Your task to perform on an android device: turn notification dots off Image 0: 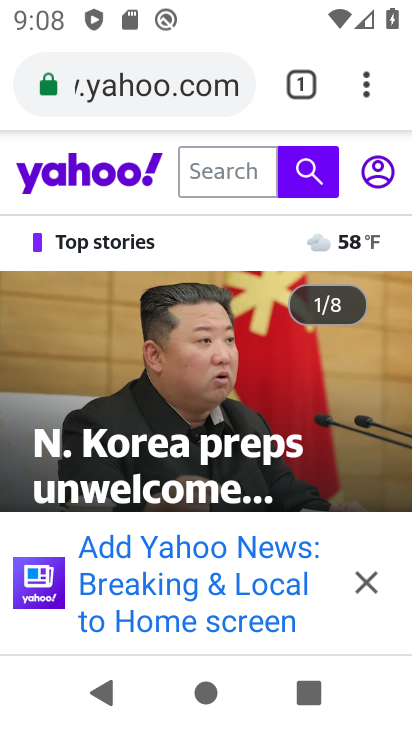
Step 0: press home button
Your task to perform on an android device: turn notification dots off Image 1: 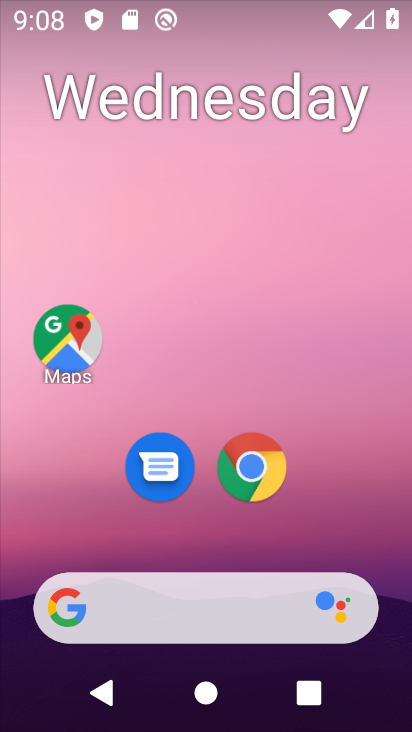
Step 1: drag from (311, 540) to (170, 6)
Your task to perform on an android device: turn notification dots off Image 2: 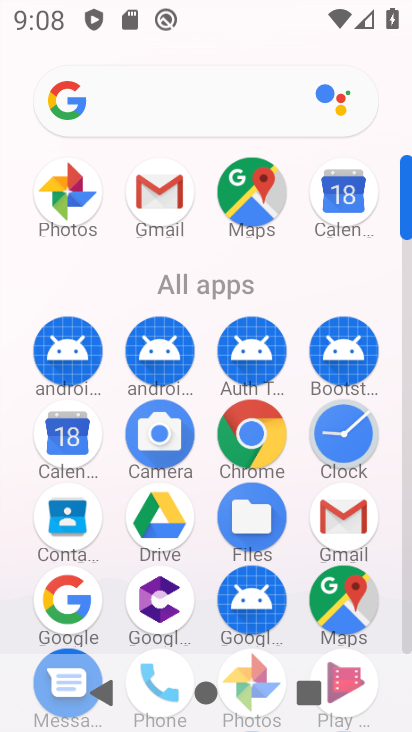
Step 2: drag from (204, 554) to (202, 113)
Your task to perform on an android device: turn notification dots off Image 3: 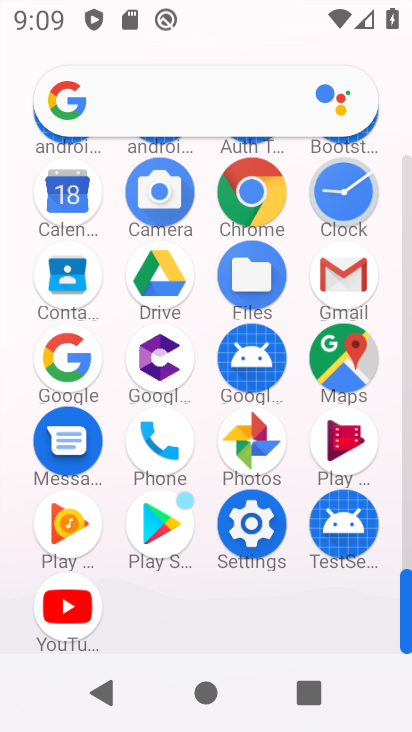
Step 3: click (242, 530)
Your task to perform on an android device: turn notification dots off Image 4: 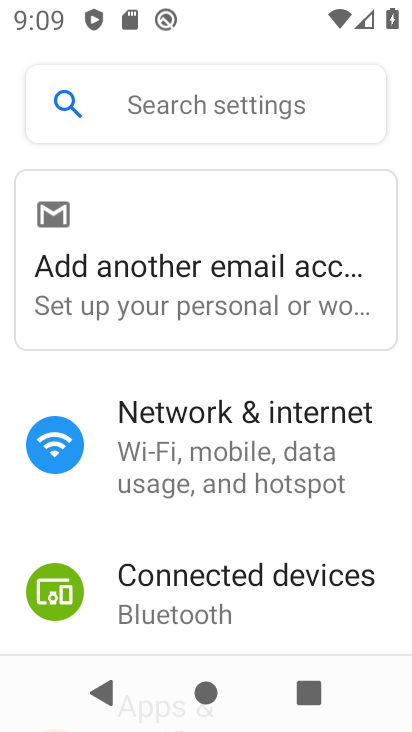
Step 4: drag from (267, 551) to (269, 129)
Your task to perform on an android device: turn notification dots off Image 5: 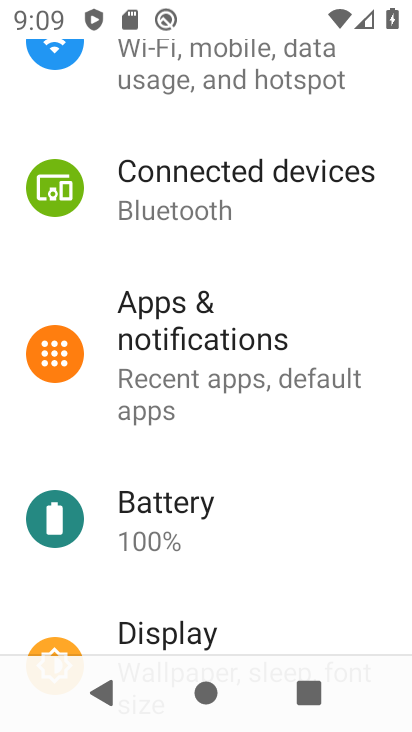
Step 5: click (207, 350)
Your task to perform on an android device: turn notification dots off Image 6: 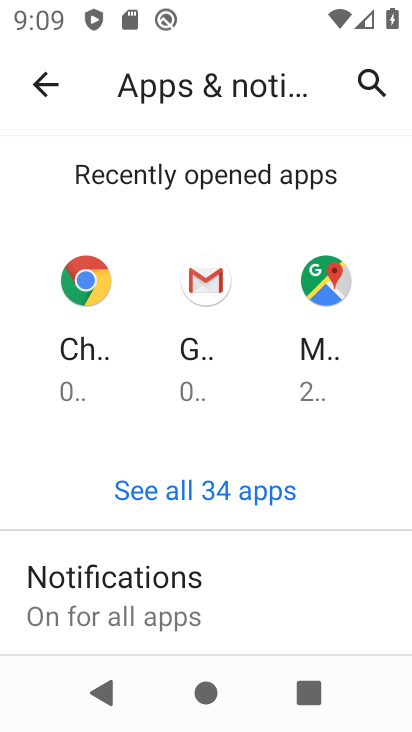
Step 6: click (236, 580)
Your task to perform on an android device: turn notification dots off Image 7: 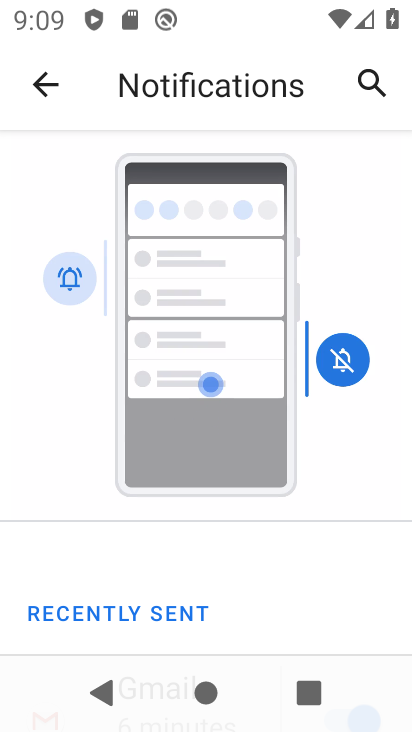
Step 7: drag from (193, 553) to (229, 190)
Your task to perform on an android device: turn notification dots off Image 8: 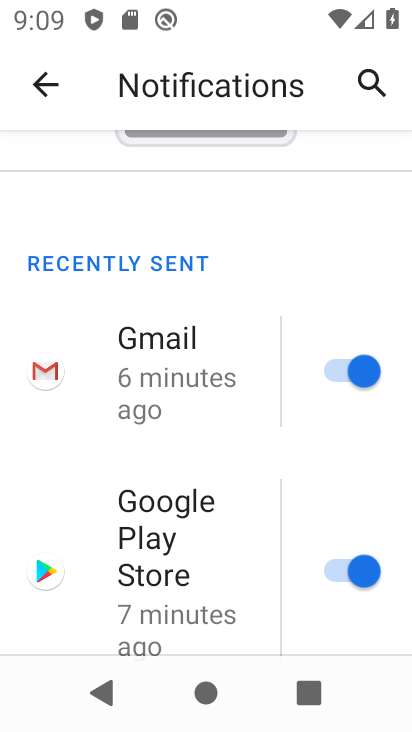
Step 8: drag from (215, 574) to (244, 215)
Your task to perform on an android device: turn notification dots off Image 9: 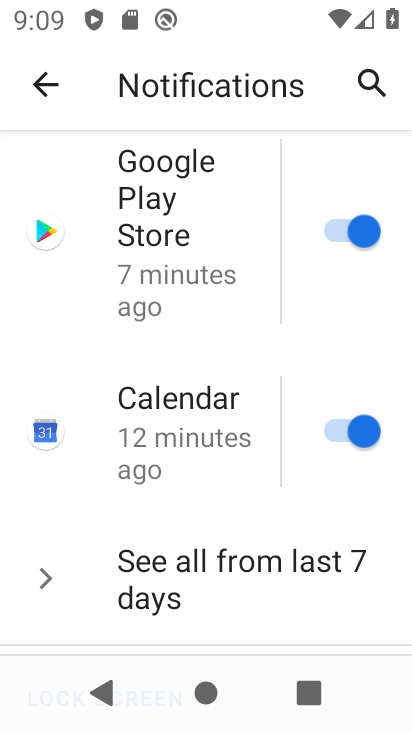
Step 9: drag from (207, 494) to (246, 256)
Your task to perform on an android device: turn notification dots off Image 10: 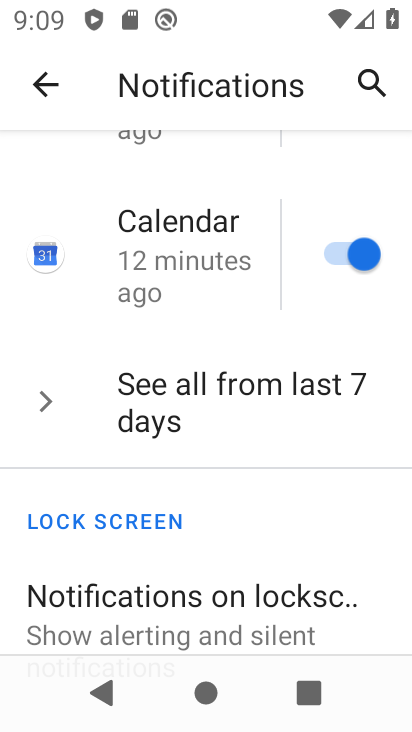
Step 10: drag from (225, 549) to (212, 209)
Your task to perform on an android device: turn notification dots off Image 11: 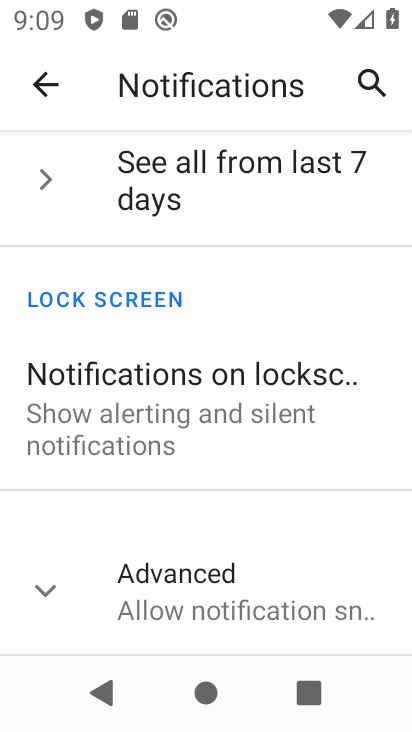
Step 11: click (191, 595)
Your task to perform on an android device: turn notification dots off Image 12: 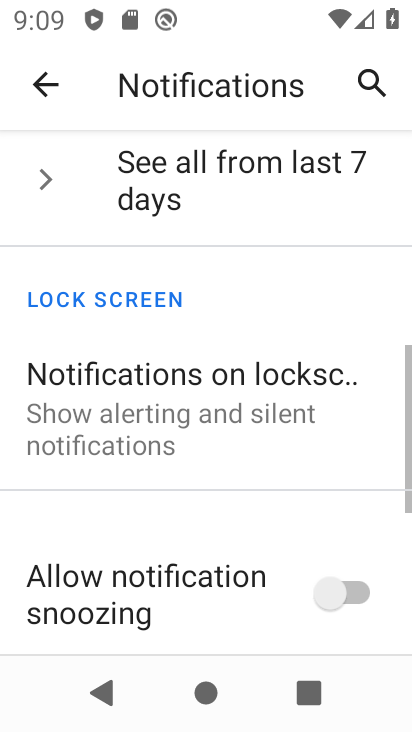
Step 12: drag from (212, 605) to (230, 192)
Your task to perform on an android device: turn notification dots off Image 13: 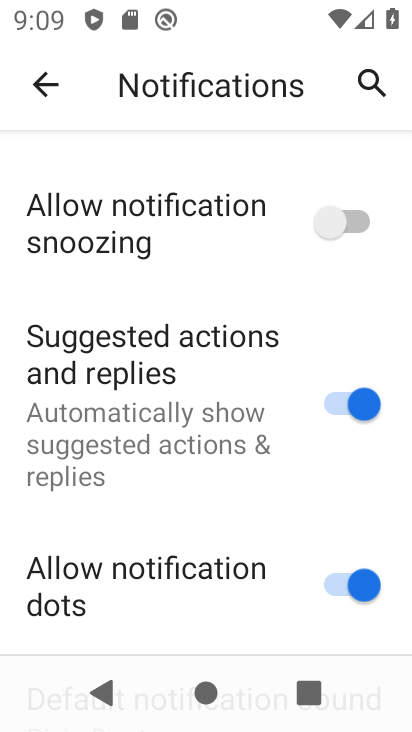
Step 13: click (358, 591)
Your task to perform on an android device: turn notification dots off Image 14: 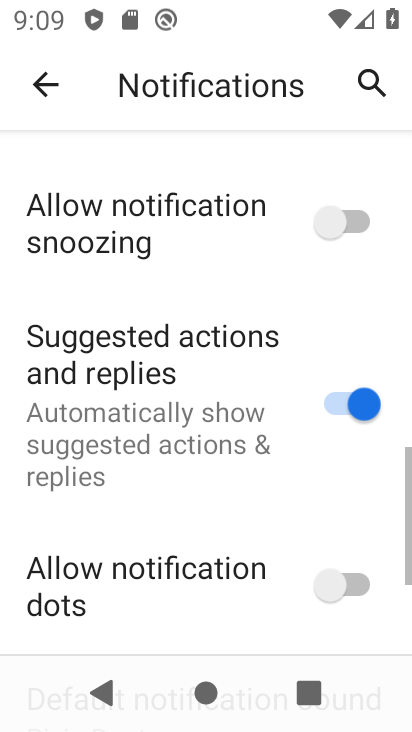
Step 14: task complete